Your task to perform on an android device: Open calendar and show me the fourth week of next month Image 0: 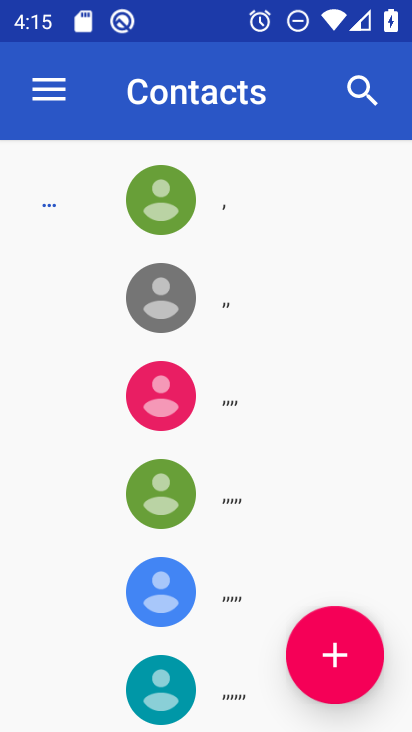
Step 0: press home button
Your task to perform on an android device: Open calendar and show me the fourth week of next month Image 1: 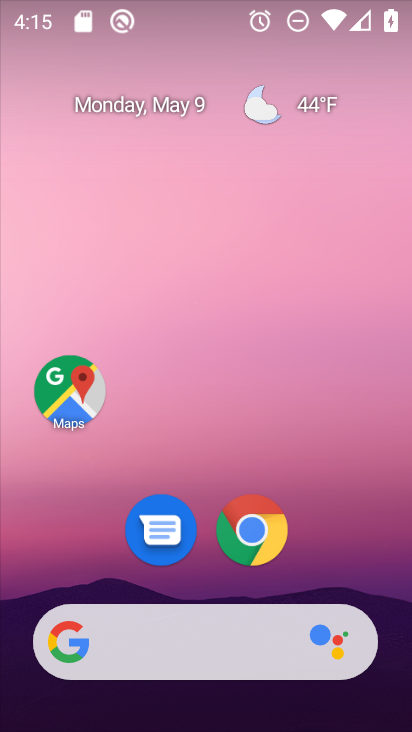
Step 1: drag from (203, 582) to (212, 184)
Your task to perform on an android device: Open calendar and show me the fourth week of next month Image 2: 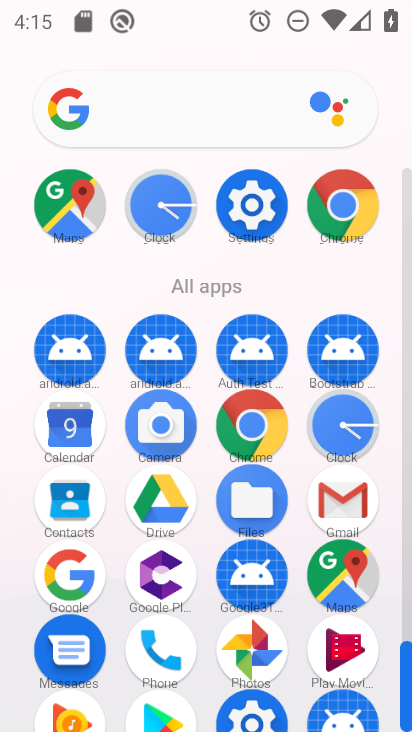
Step 2: click (65, 422)
Your task to perform on an android device: Open calendar and show me the fourth week of next month Image 3: 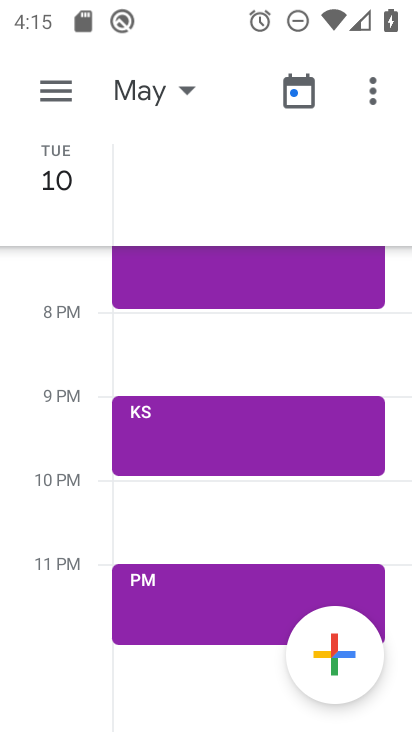
Step 3: click (55, 95)
Your task to perform on an android device: Open calendar and show me the fourth week of next month Image 4: 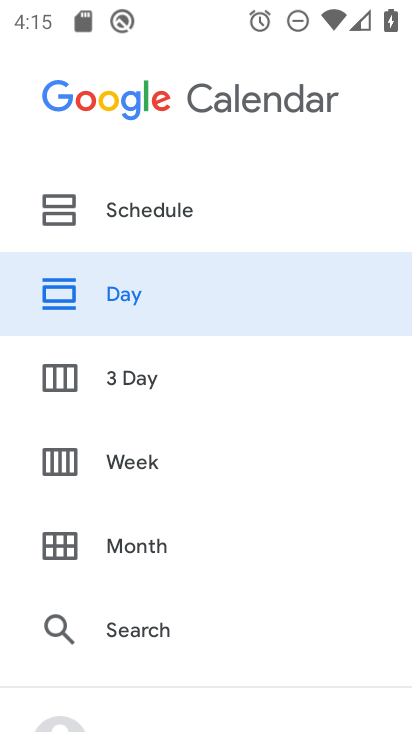
Step 4: click (93, 462)
Your task to perform on an android device: Open calendar and show me the fourth week of next month Image 5: 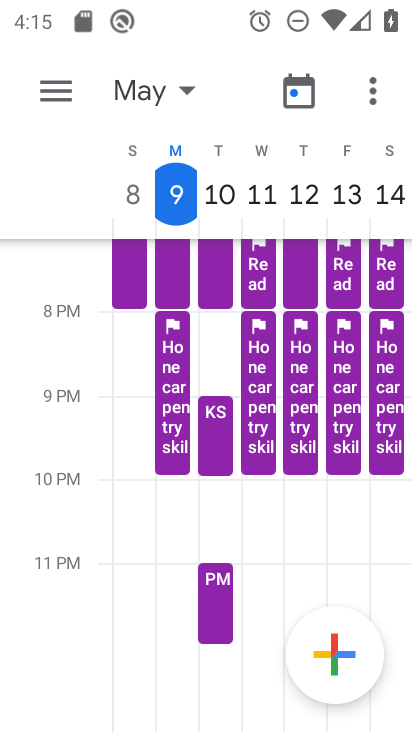
Step 5: drag from (391, 195) to (37, 193)
Your task to perform on an android device: Open calendar and show me the fourth week of next month Image 6: 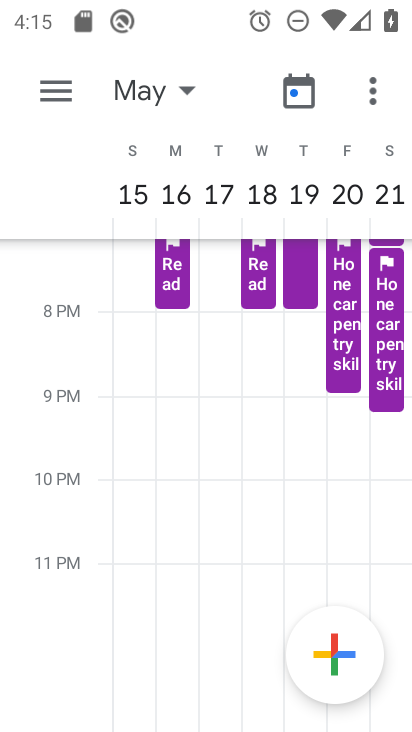
Step 6: drag from (391, 195) to (61, 209)
Your task to perform on an android device: Open calendar and show me the fourth week of next month Image 7: 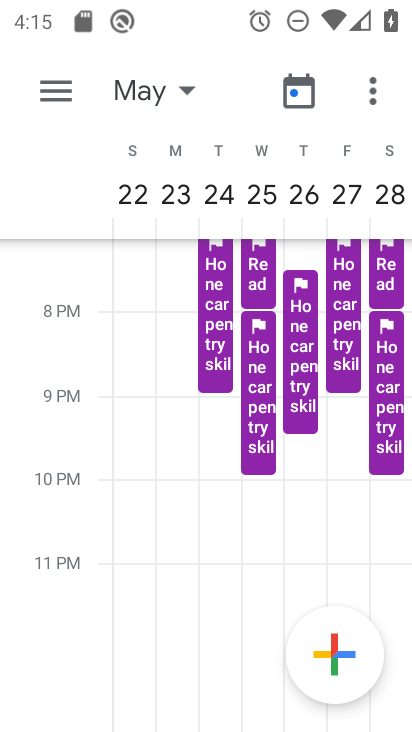
Step 7: drag from (326, 194) to (22, 194)
Your task to perform on an android device: Open calendar and show me the fourth week of next month Image 8: 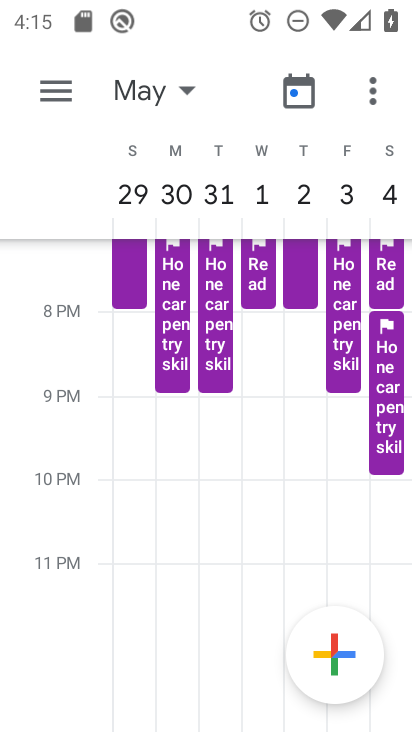
Step 8: drag from (368, 190) to (76, 203)
Your task to perform on an android device: Open calendar and show me the fourth week of next month Image 9: 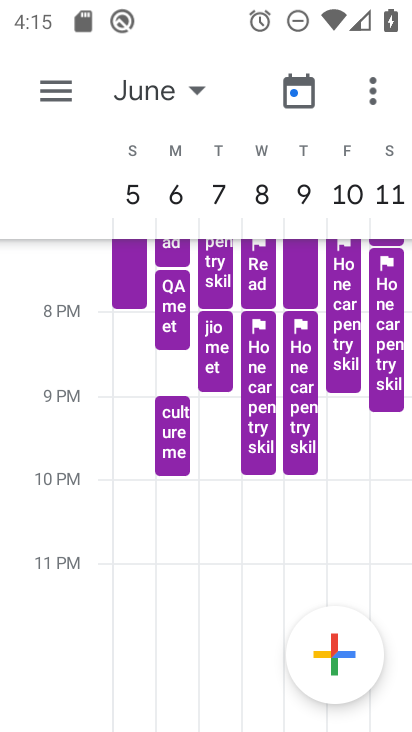
Step 9: drag from (377, 197) to (24, 200)
Your task to perform on an android device: Open calendar and show me the fourth week of next month Image 10: 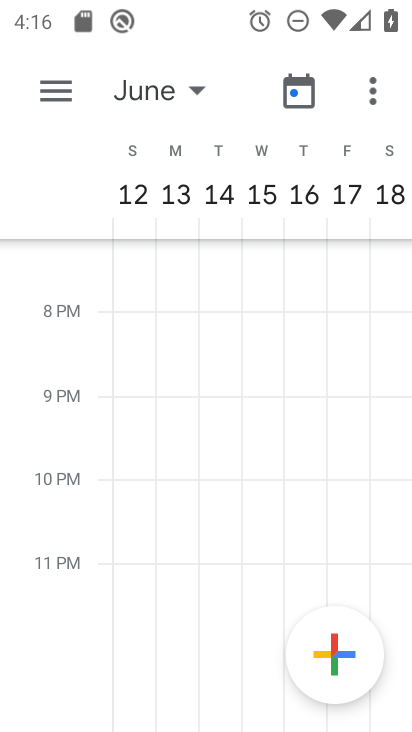
Step 10: drag from (385, 197) to (76, 204)
Your task to perform on an android device: Open calendar and show me the fourth week of next month Image 11: 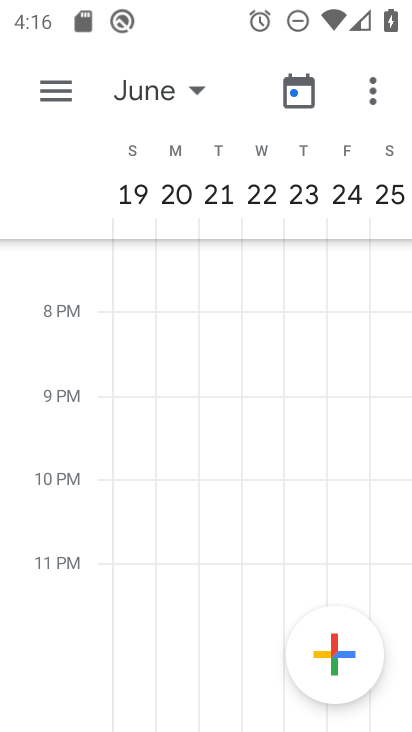
Step 11: click (135, 190)
Your task to perform on an android device: Open calendar and show me the fourth week of next month Image 12: 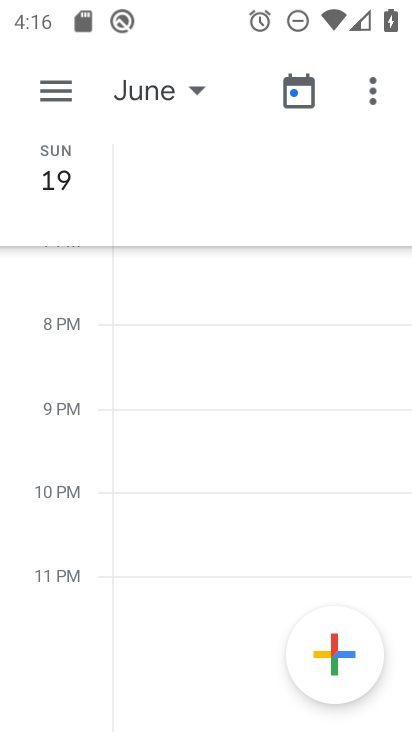
Step 12: drag from (85, 583) to (89, 320)
Your task to perform on an android device: Open calendar and show me the fourth week of next month Image 13: 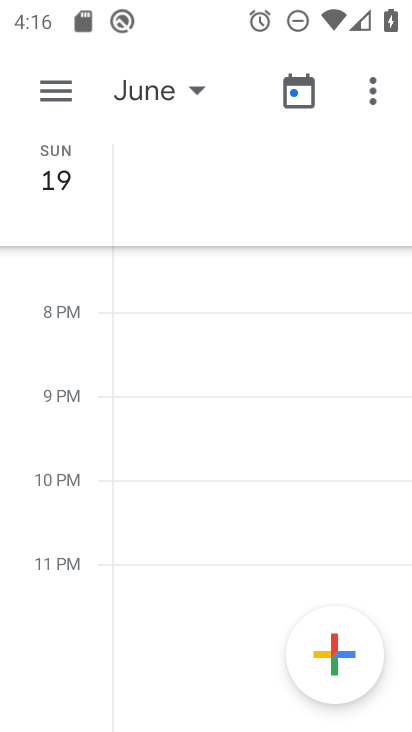
Step 13: click (90, 175)
Your task to perform on an android device: Open calendar and show me the fourth week of next month Image 14: 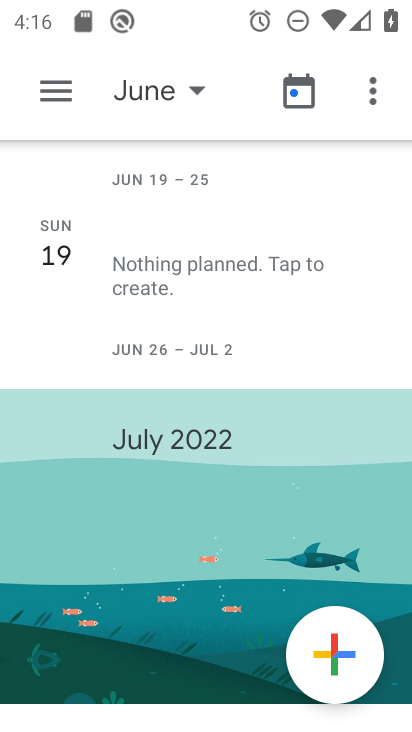
Step 14: task complete